Your task to perform on an android device: Go to CNN.com Image 0: 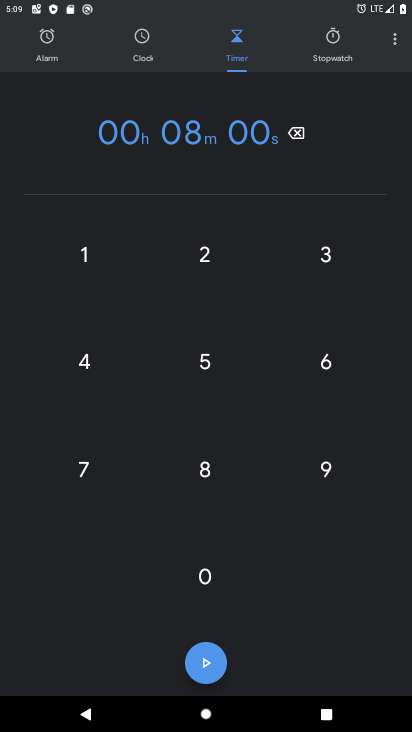
Step 0: press home button
Your task to perform on an android device: Go to CNN.com Image 1: 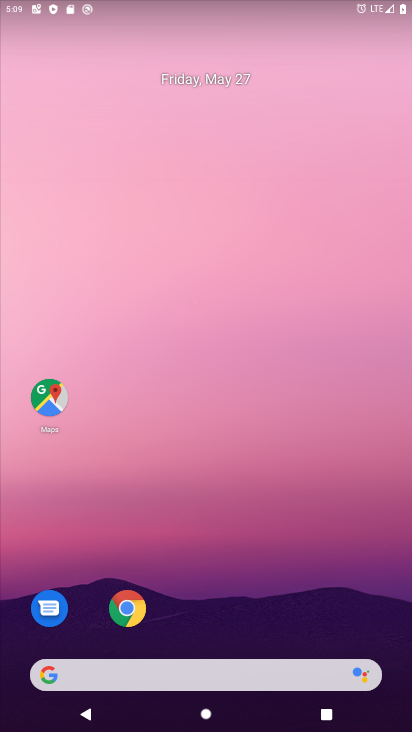
Step 1: drag from (207, 668) to (225, 219)
Your task to perform on an android device: Go to CNN.com Image 2: 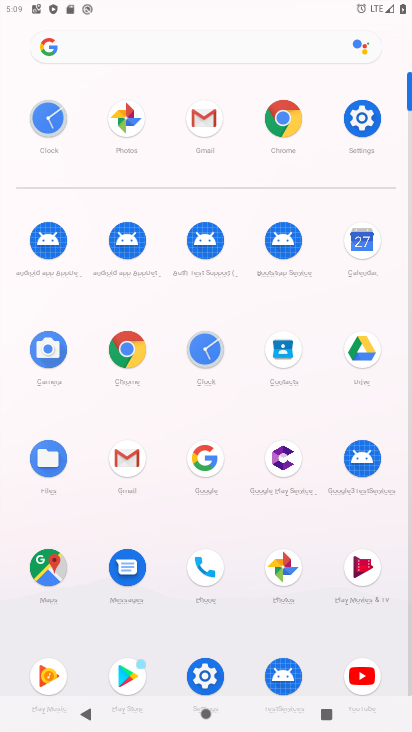
Step 2: click (211, 460)
Your task to perform on an android device: Go to CNN.com Image 3: 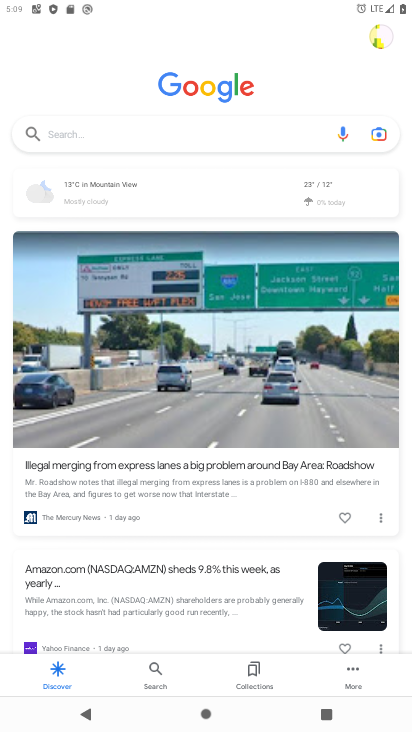
Step 3: click (150, 124)
Your task to perform on an android device: Go to CNN.com Image 4: 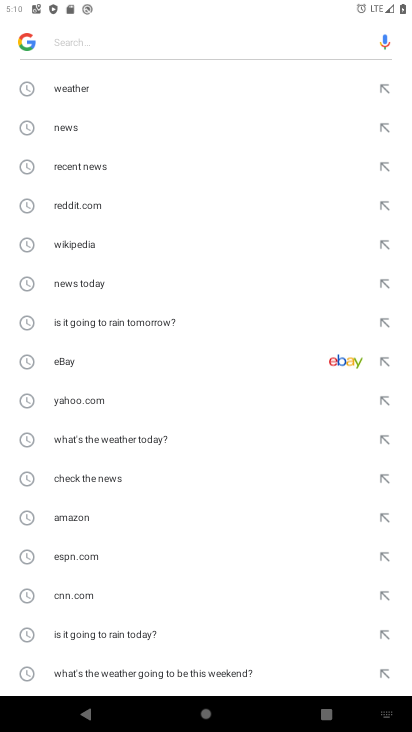
Step 4: click (72, 598)
Your task to perform on an android device: Go to CNN.com Image 5: 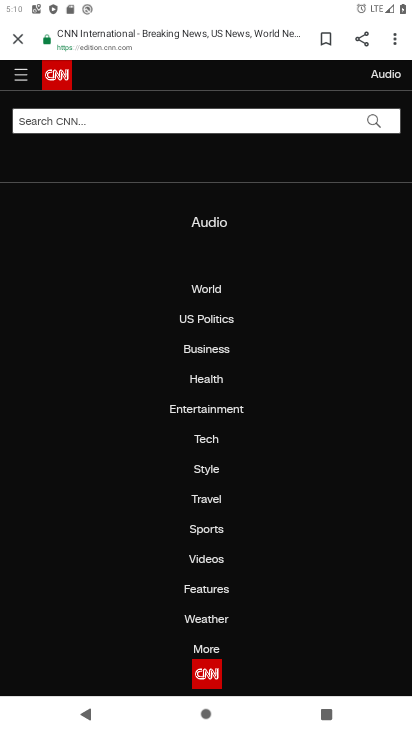
Step 5: task complete